Your task to perform on an android device: search for starred emails in the gmail app Image 0: 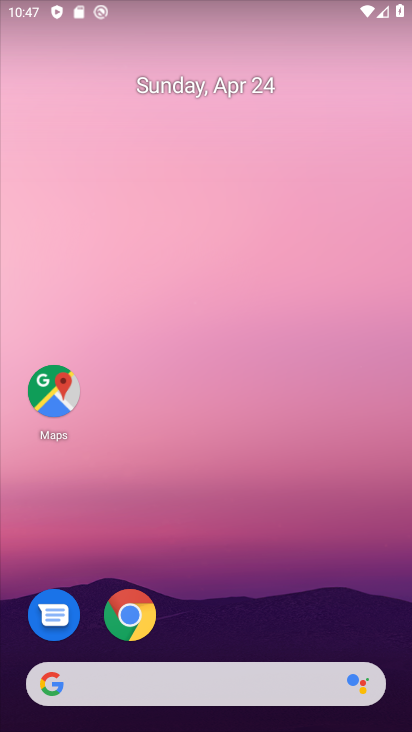
Step 0: drag from (217, 623) to (280, 10)
Your task to perform on an android device: search for starred emails in the gmail app Image 1: 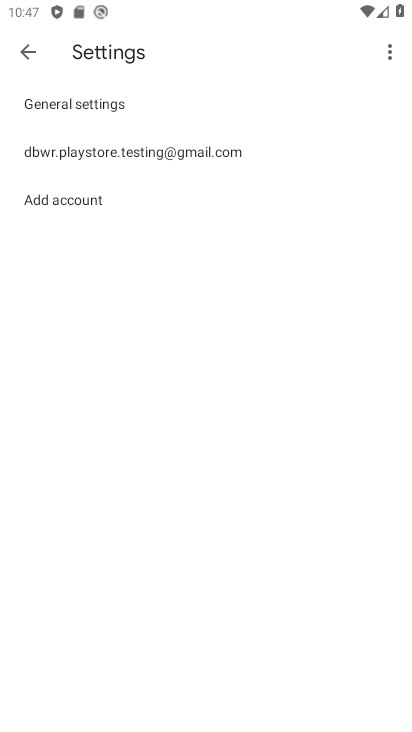
Step 1: press home button
Your task to perform on an android device: search for starred emails in the gmail app Image 2: 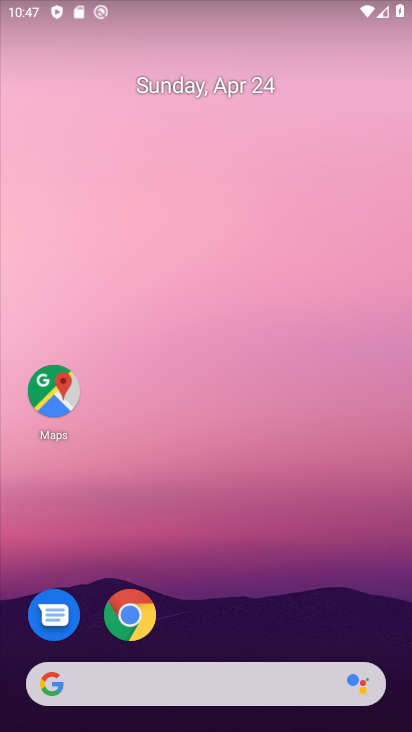
Step 2: drag from (220, 476) to (264, 107)
Your task to perform on an android device: search for starred emails in the gmail app Image 3: 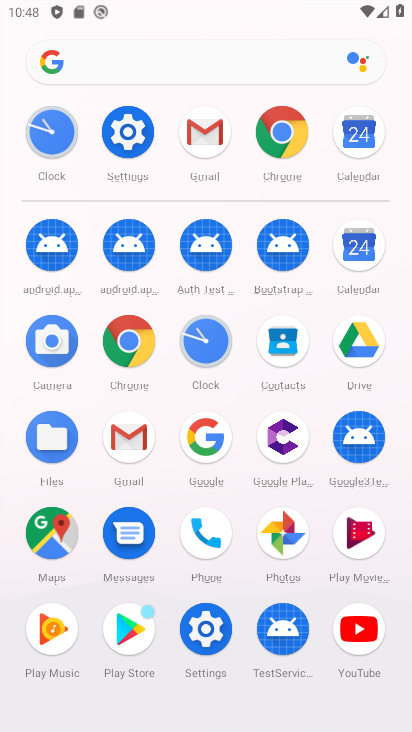
Step 3: click (130, 431)
Your task to perform on an android device: search for starred emails in the gmail app Image 4: 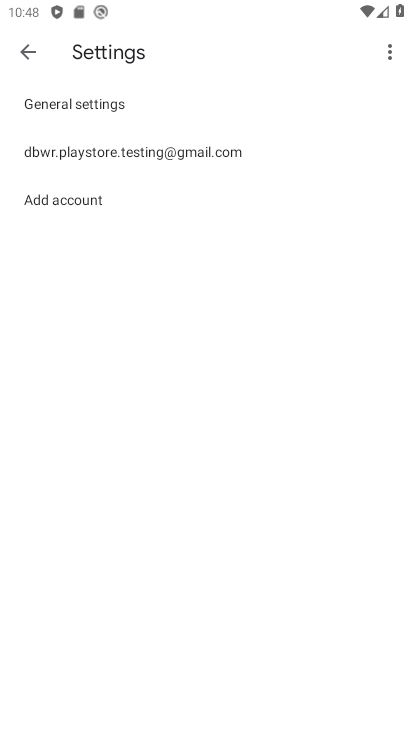
Step 4: press home button
Your task to perform on an android device: search for starred emails in the gmail app Image 5: 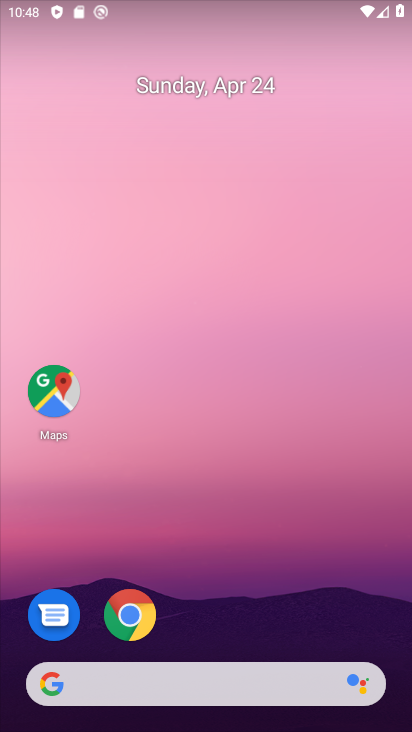
Step 5: drag from (202, 591) to (228, 27)
Your task to perform on an android device: search for starred emails in the gmail app Image 6: 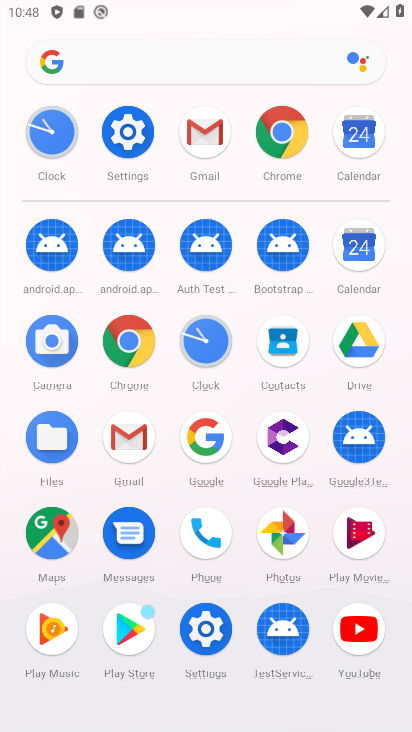
Step 6: click (125, 430)
Your task to perform on an android device: search for starred emails in the gmail app Image 7: 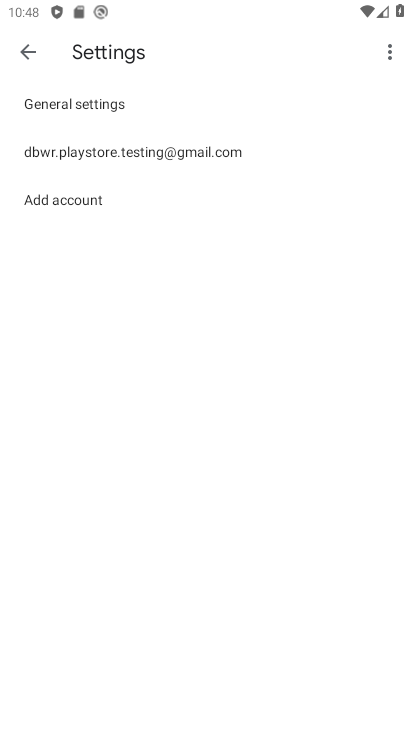
Step 7: click (24, 52)
Your task to perform on an android device: search for starred emails in the gmail app Image 8: 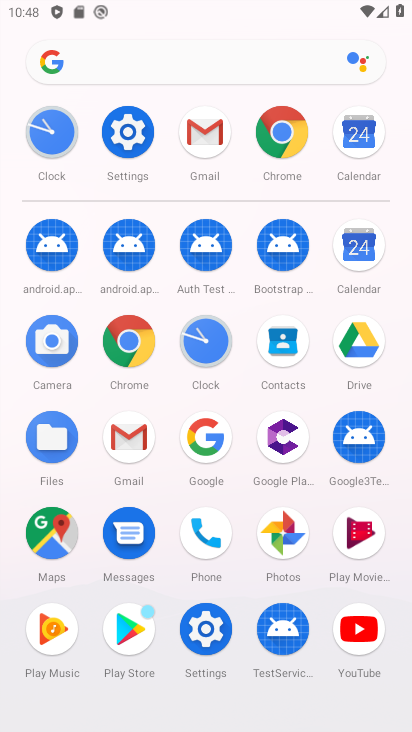
Step 8: click (129, 431)
Your task to perform on an android device: search for starred emails in the gmail app Image 9: 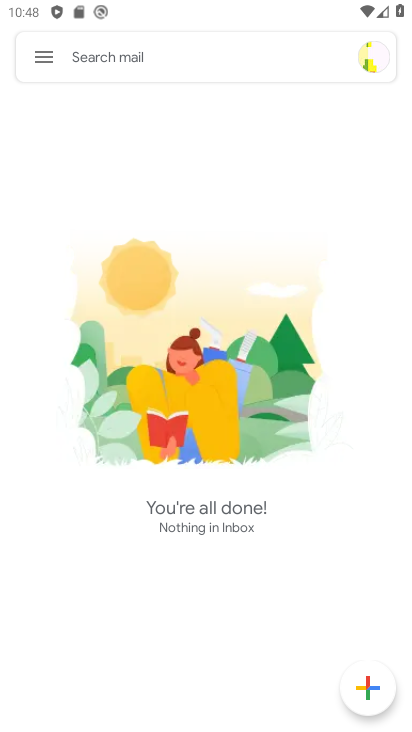
Step 9: click (45, 49)
Your task to perform on an android device: search for starred emails in the gmail app Image 10: 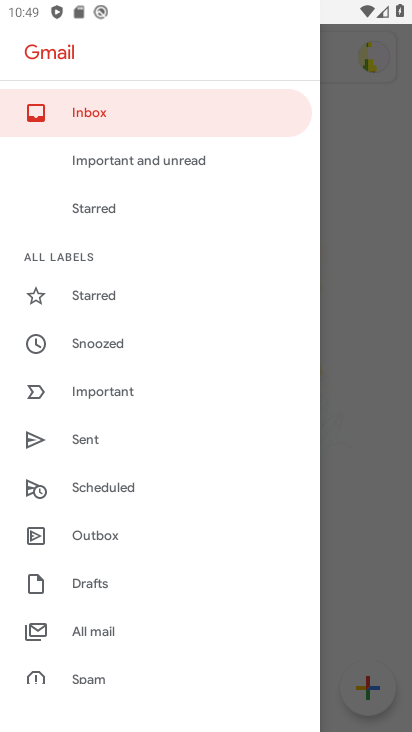
Step 10: click (98, 291)
Your task to perform on an android device: search for starred emails in the gmail app Image 11: 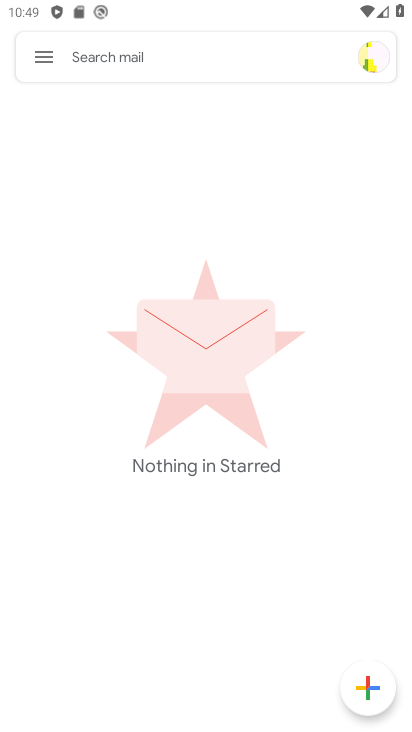
Step 11: task complete